Your task to perform on an android device: turn on bluetooth scan Image 0: 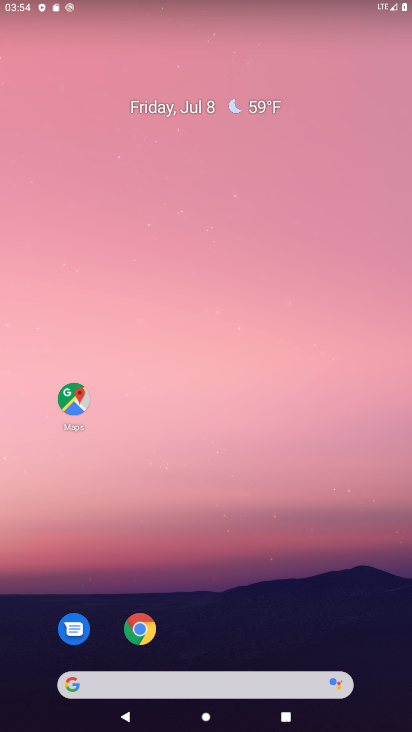
Step 0: press home button
Your task to perform on an android device: turn on bluetooth scan Image 1: 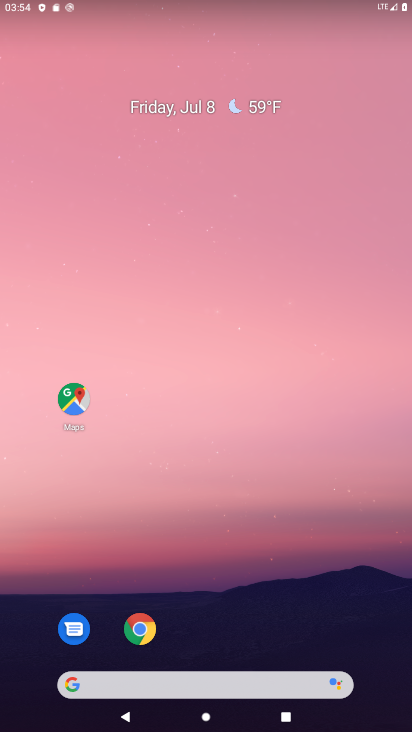
Step 1: drag from (217, 653) to (194, 114)
Your task to perform on an android device: turn on bluetooth scan Image 2: 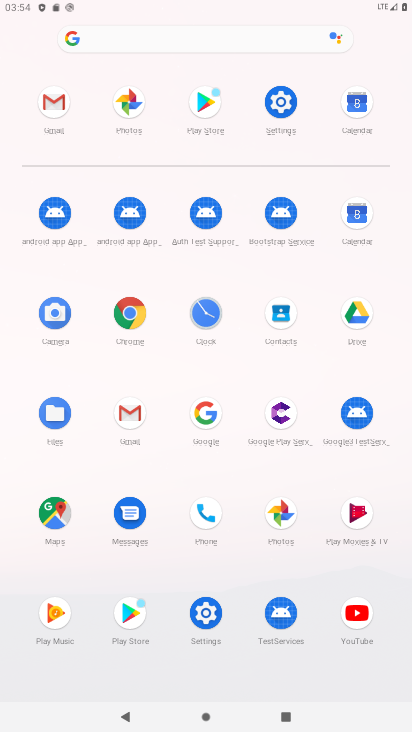
Step 2: click (278, 96)
Your task to perform on an android device: turn on bluetooth scan Image 3: 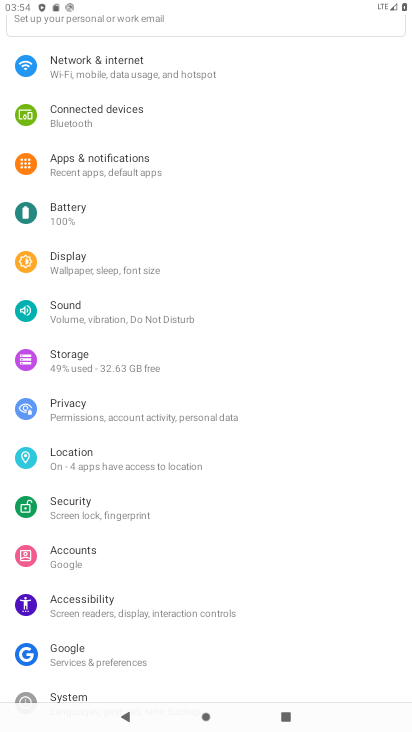
Step 3: click (93, 258)
Your task to perform on an android device: turn on bluetooth scan Image 4: 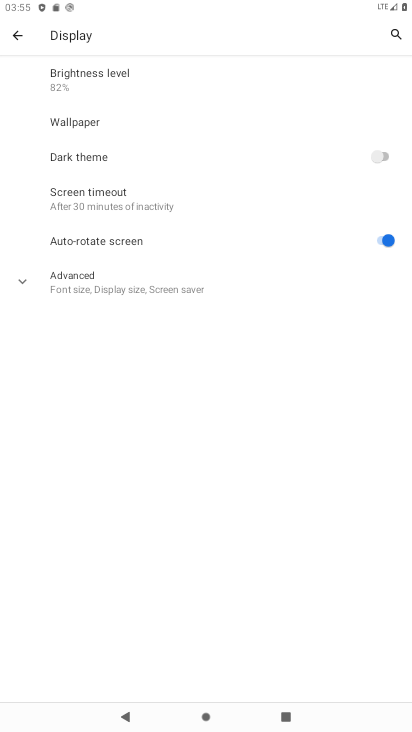
Step 4: press home button
Your task to perform on an android device: turn on bluetooth scan Image 5: 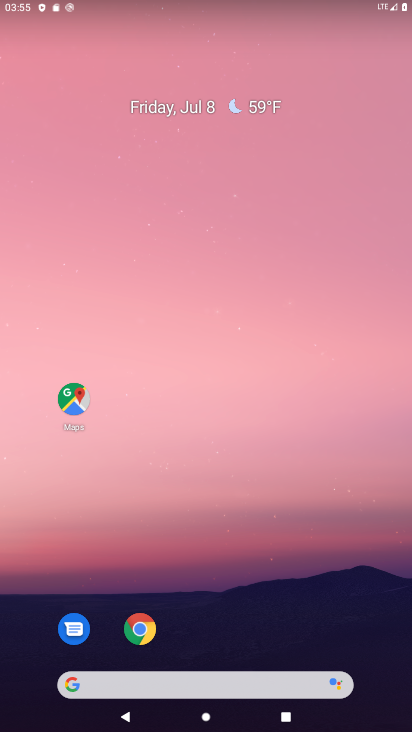
Step 5: drag from (225, 644) to (236, 58)
Your task to perform on an android device: turn on bluetooth scan Image 6: 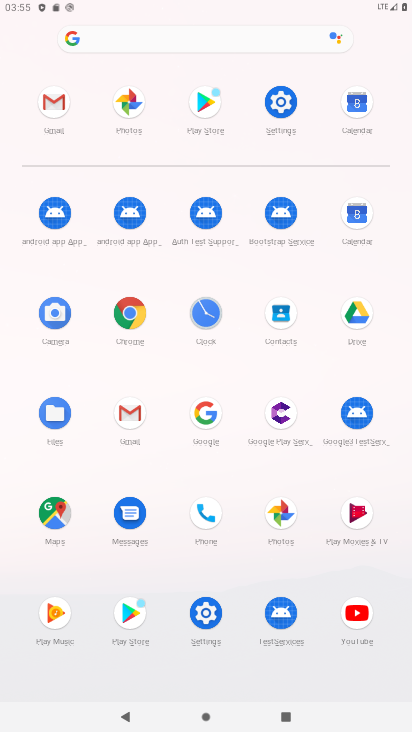
Step 6: click (281, 97)
Your task to perform on an android device: turn on bluetooth scan Image 7: 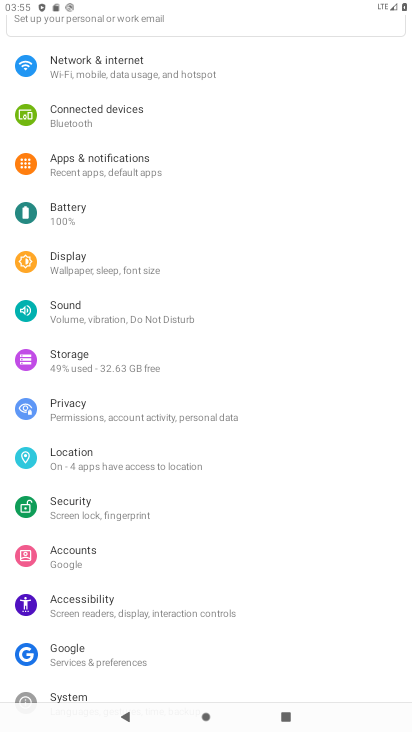
Step 7: click (90, 450)
Your task to perform on an android device: turn on bluetooth scan Image 8: 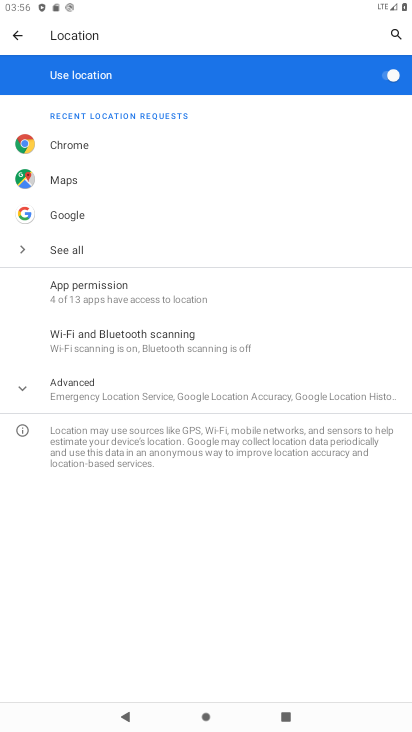
Step 8: click (160, 335)
Your task to perform on an android device: turn on bluetooth scan Image 9: 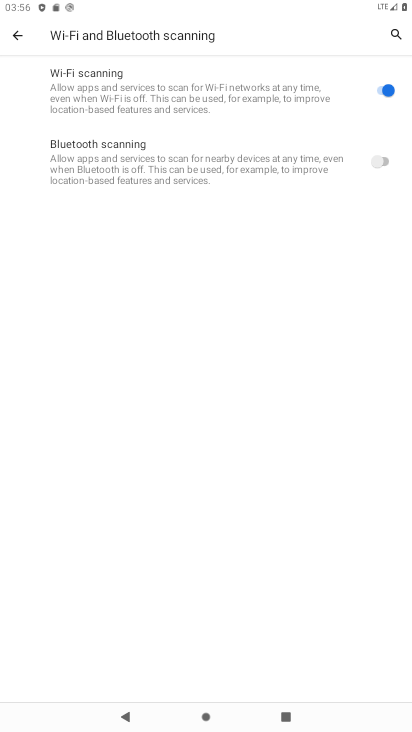
Step 9: click (387, 161)
Your task to perform on an android device: turn on bluetooth scan Image 10: 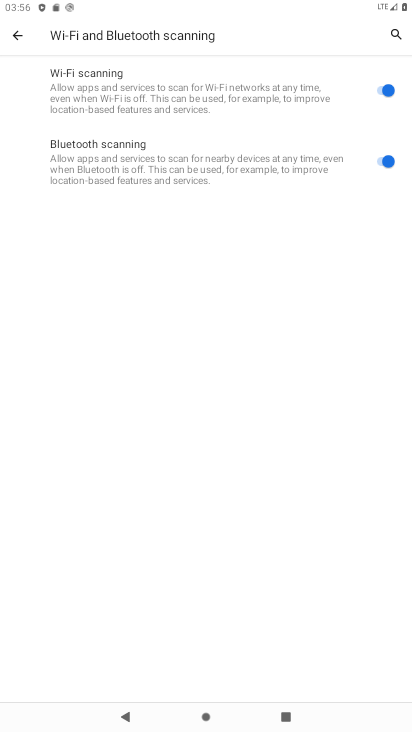
Step 10: task complete